Your task to perform on an android device: Open calendar and show me the third week of next month Image 0: 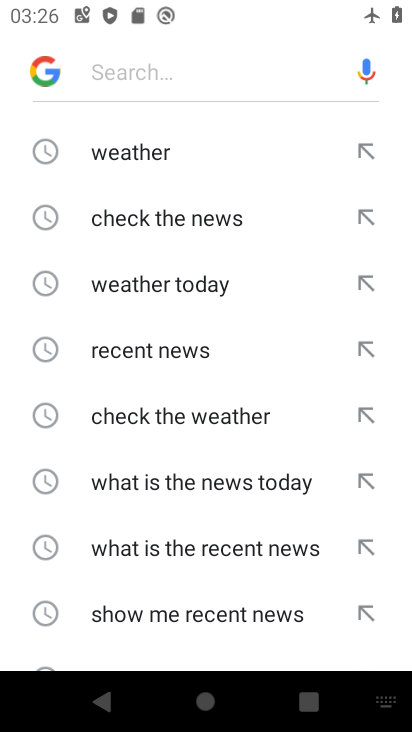
Step 0: press home button
Your task to perform on an android device: Open calendar and show me the third week of next month Image 1: 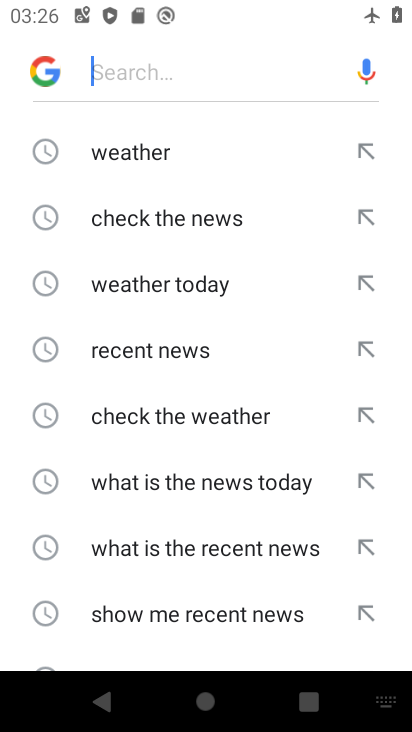
Step 1: press home button
Your task to perform on an android device: Open calendar and show me the third week of next month Image 2: 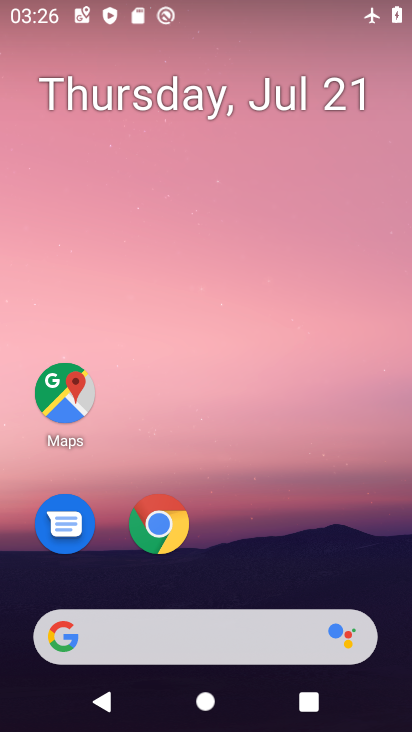
Step 2: drag from (254, 540) to (282, 13)
Your task to perform on an android device: Open calendar and show me the third week of next month Image 3: 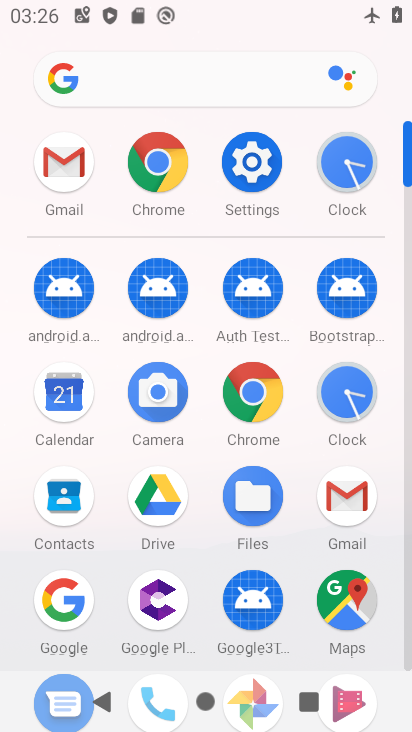
Step 3: click (70, 395)
Your task to perform on an android device: Open calendar and show me the third week of next month Image 4: 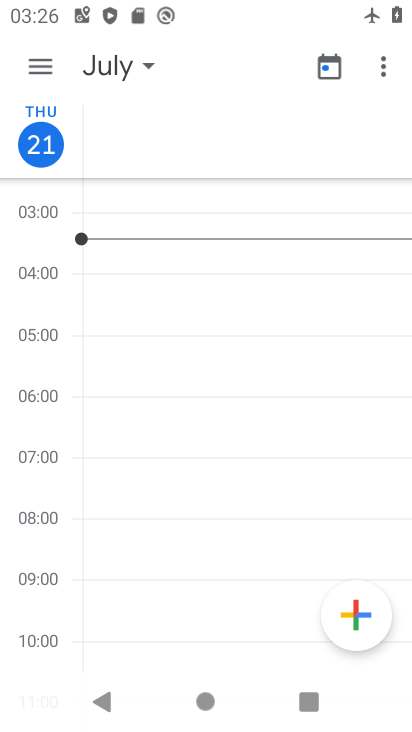
Step 4: drag from (237, 309) to (232, 513)
Your task to perform on an android device: Open calendar and show me the third week of next month Image 5: 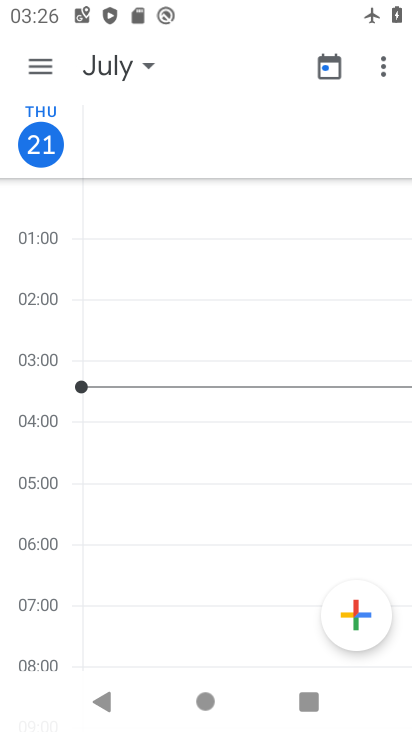
Step 5: click (42, 67)
Your task to perform on an android device: Open calendar and show me the third week of next month Image 6: 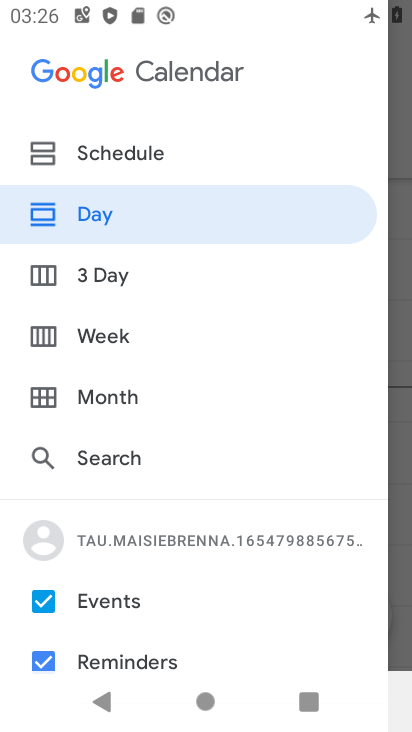
Step 6: click (51, 400)
Your task to perform on an android device: Open calendar and show me the third week of next month Image 7: 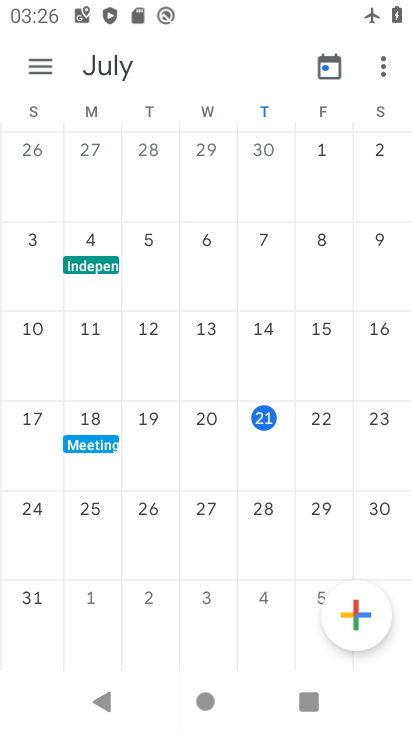
Step 7: drag from (380, 281) to (12, 286)
Your task to perform on an android device: Open calendar and show me the third week of next month Image 8: 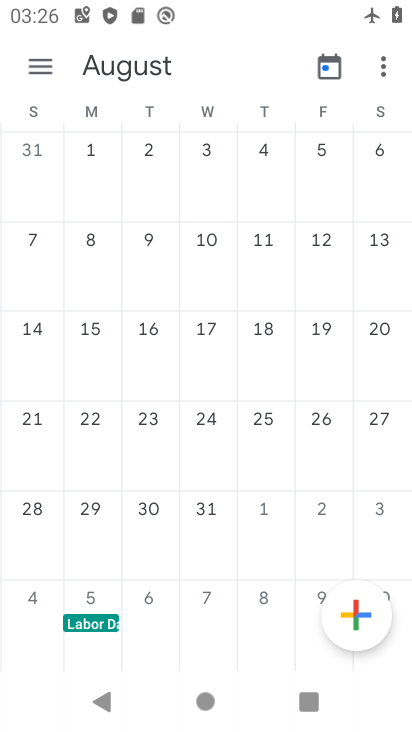
Step 8: click (39, 420)
Your task to perform on an android device: Open calendar and show me the third week of next month Image 9: 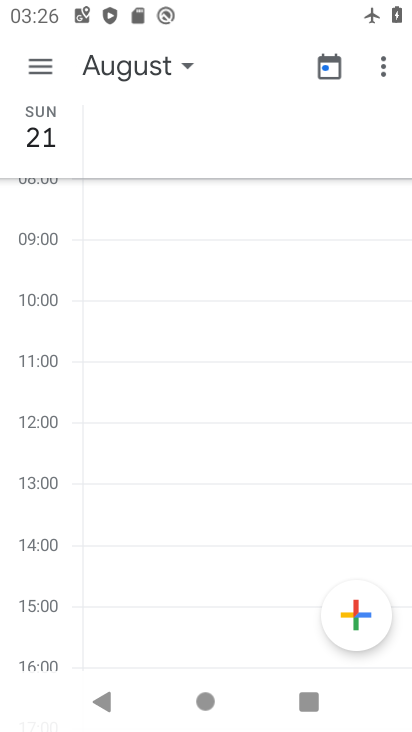
Step 9: click (43, 65)
Your task to perform on an android device: Open calendar and show me the third week of next month Image 10: 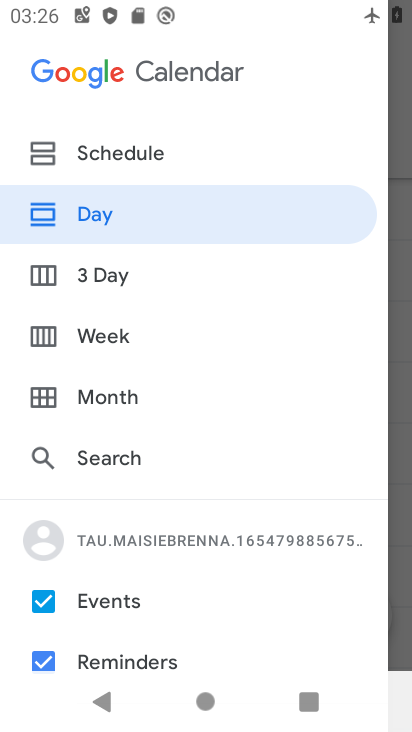
Step 10: click (38, 340)
Your task to perform on an android device: Open calendar and show me the third week of next month Image 11: 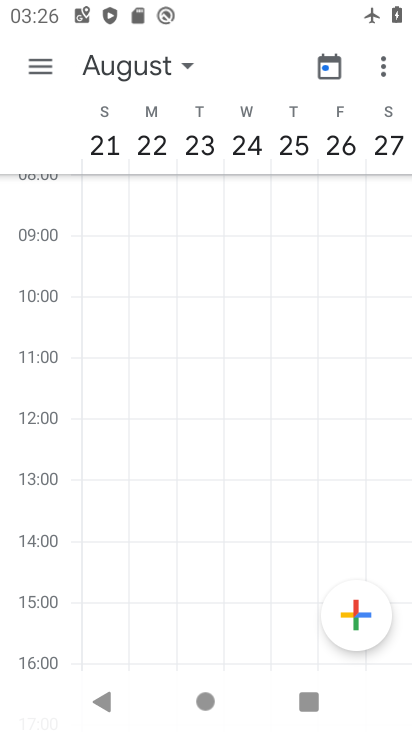
Step 11: task complete